Your task to perform on an android device: choose inbox layout in the gmail app Image 0: 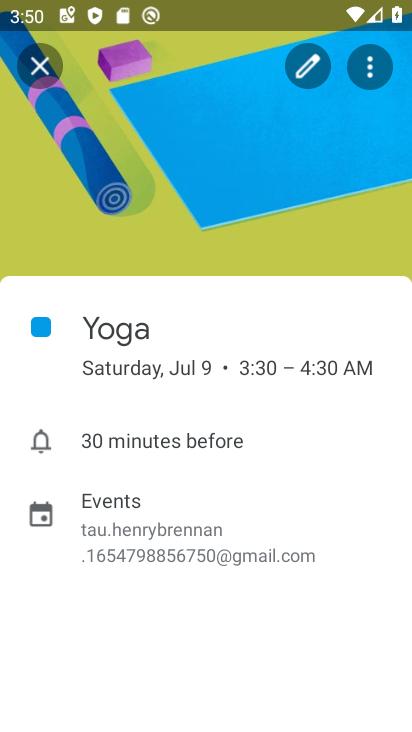
Step 0: press home button
Your task to perform on an android device: choose inbox layout in the gmail app Image 1: 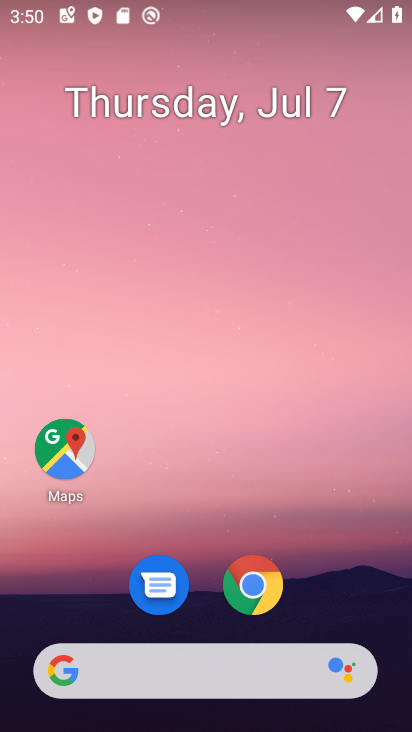
Step 1: drag from (214, 529) to (266, 31)
Your task to perform on an android device: choose inbox layout in the gmail app Image 2: 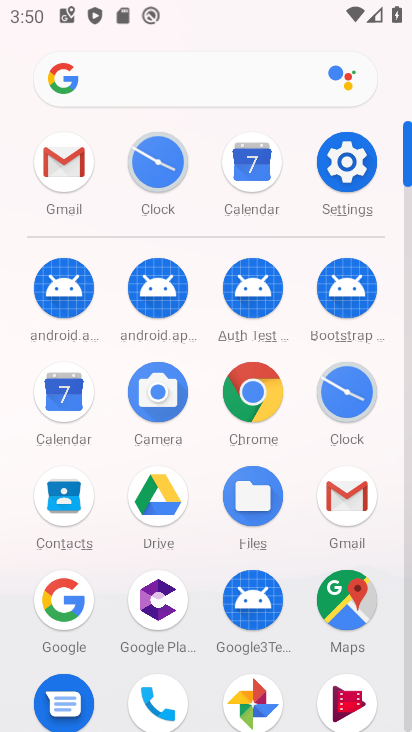
Step 2: click (64, 168)
Your task to perform on an android device: choose inbox layout in the gmail app Image 3: 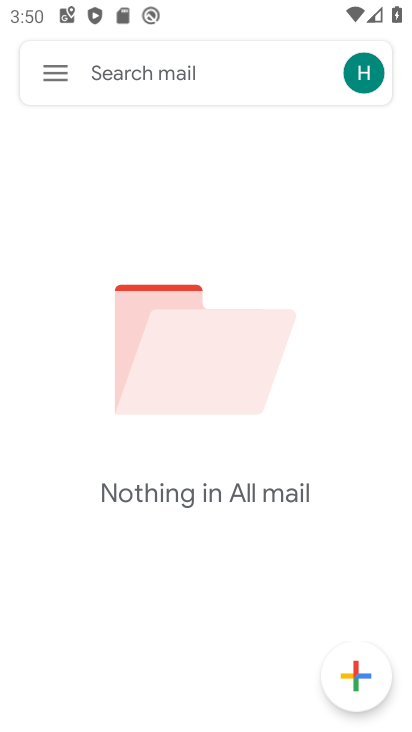
Step 3: click (57, 67)
Your task to perform on an android device: choose inbox layout in the gmail app Image 4: 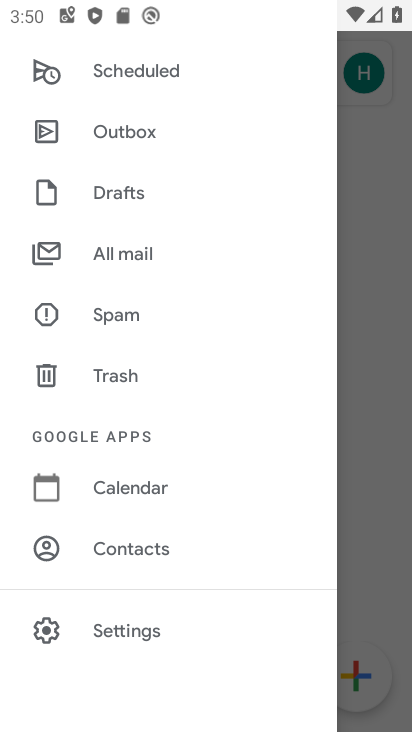
Step 4: click (138, 629)
Your task to perform on an android device: choose inbox layout in the gmail app Image 5: 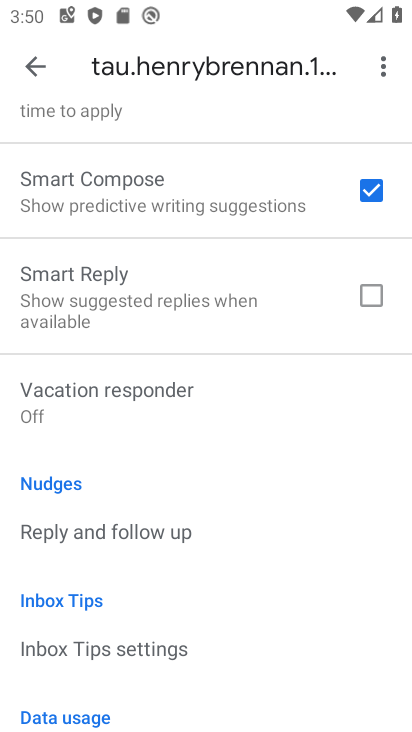
Step 5: task complete